Your task to perform on an android device: turn on the 12-hour format for clock Image 0: 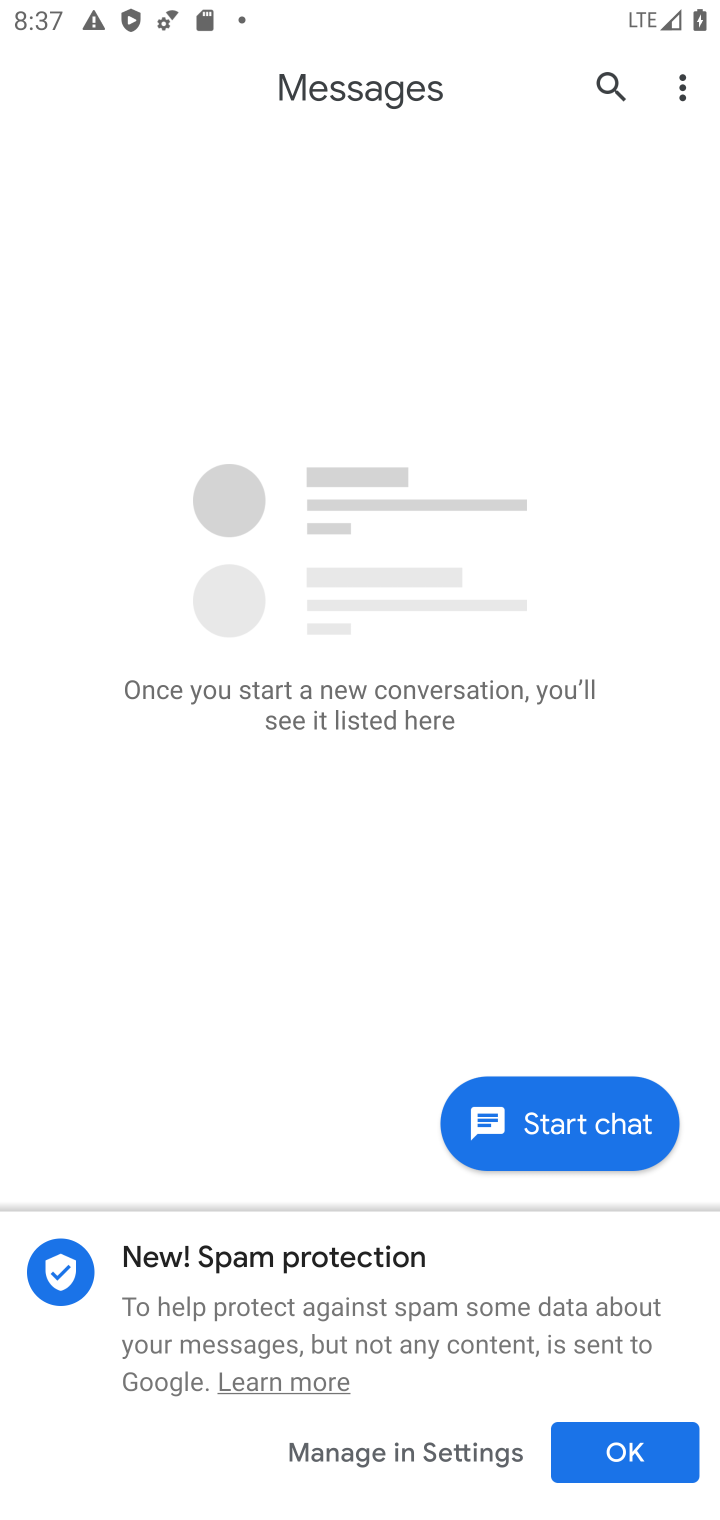
Step 0: press home button
Your task to perform on an android device: turn on the 12-hour format for clock Image 1: 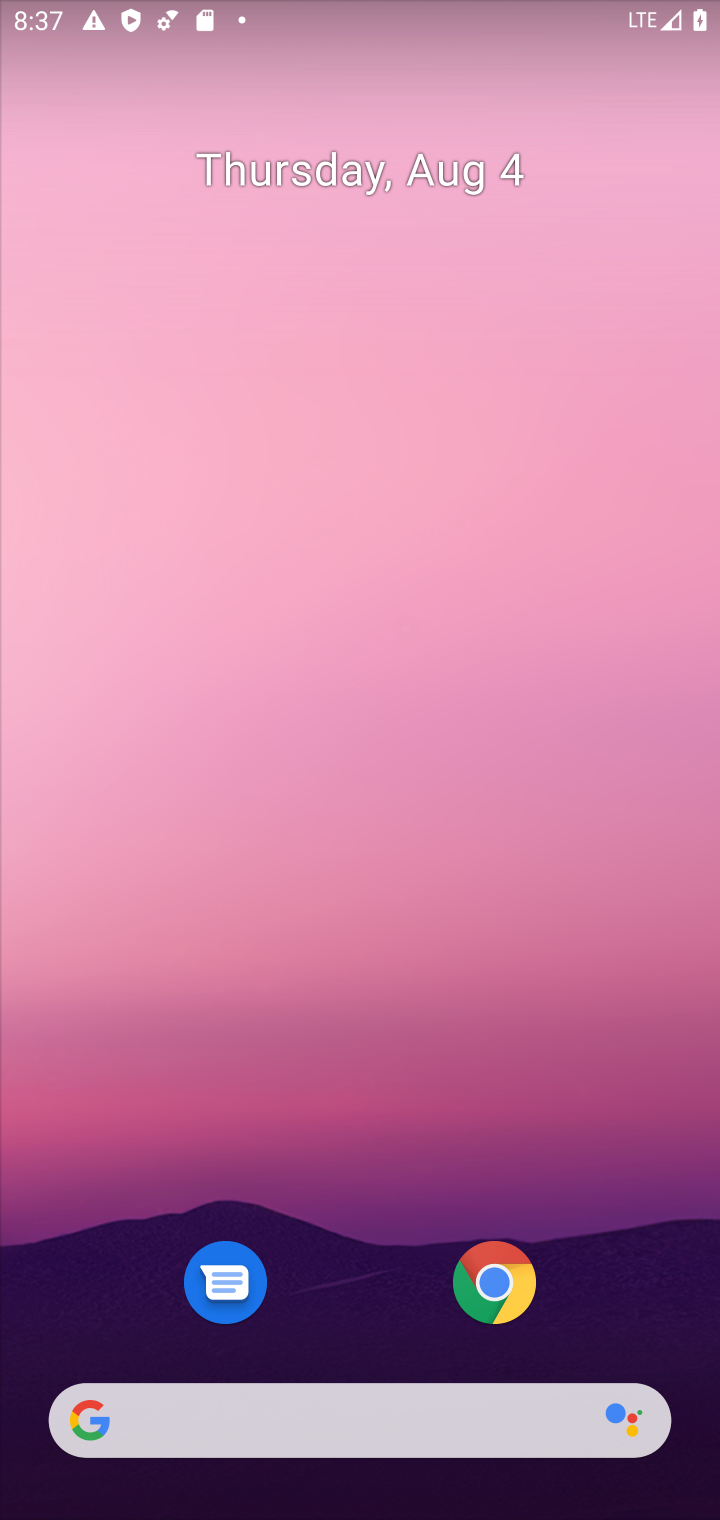
Step 1: drag from (379, 1216) to (463, 292)
Your task to perform on an android device: turn on the 12-hour format for clock Image 2: 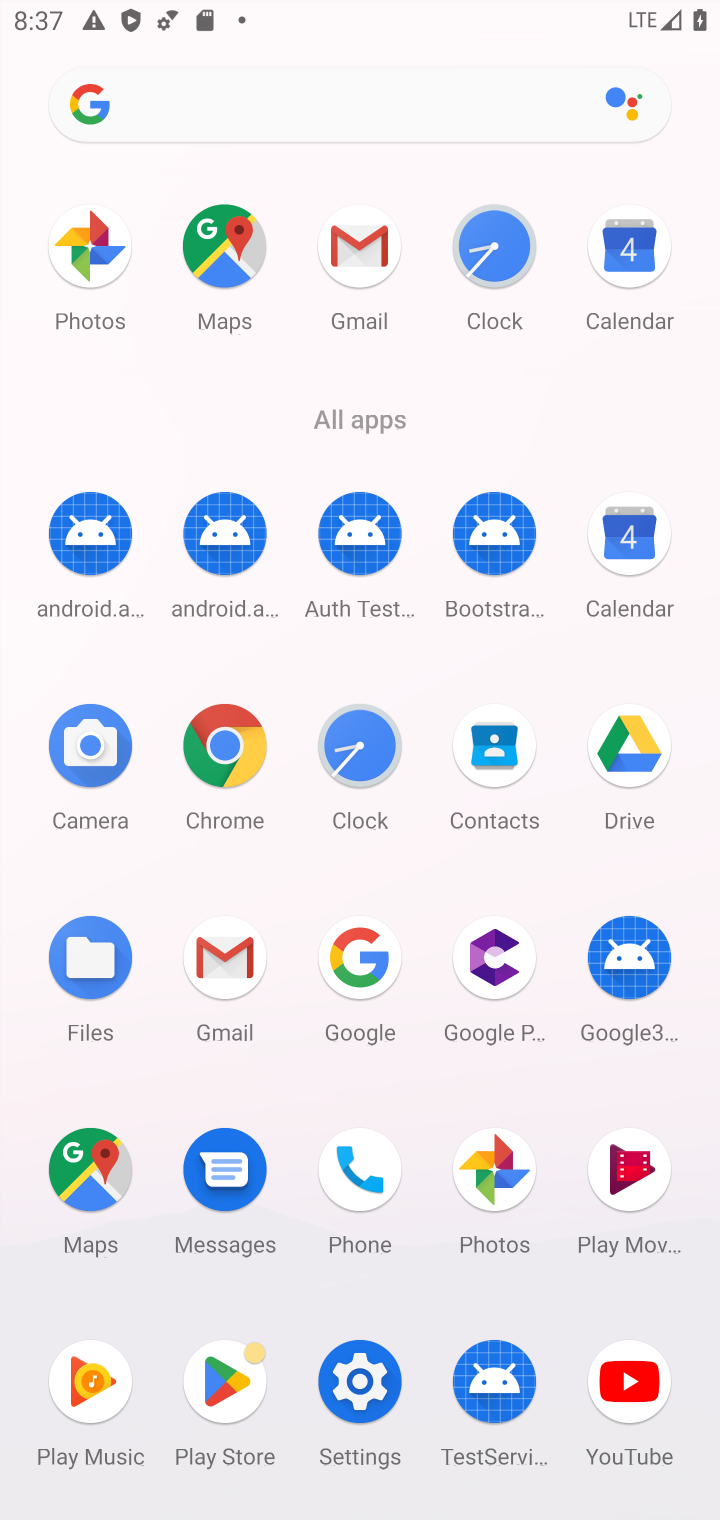
Step 2: click (483, 275)
Your task to perform on an android device: turn on the 12-hour format for clock Image 3: 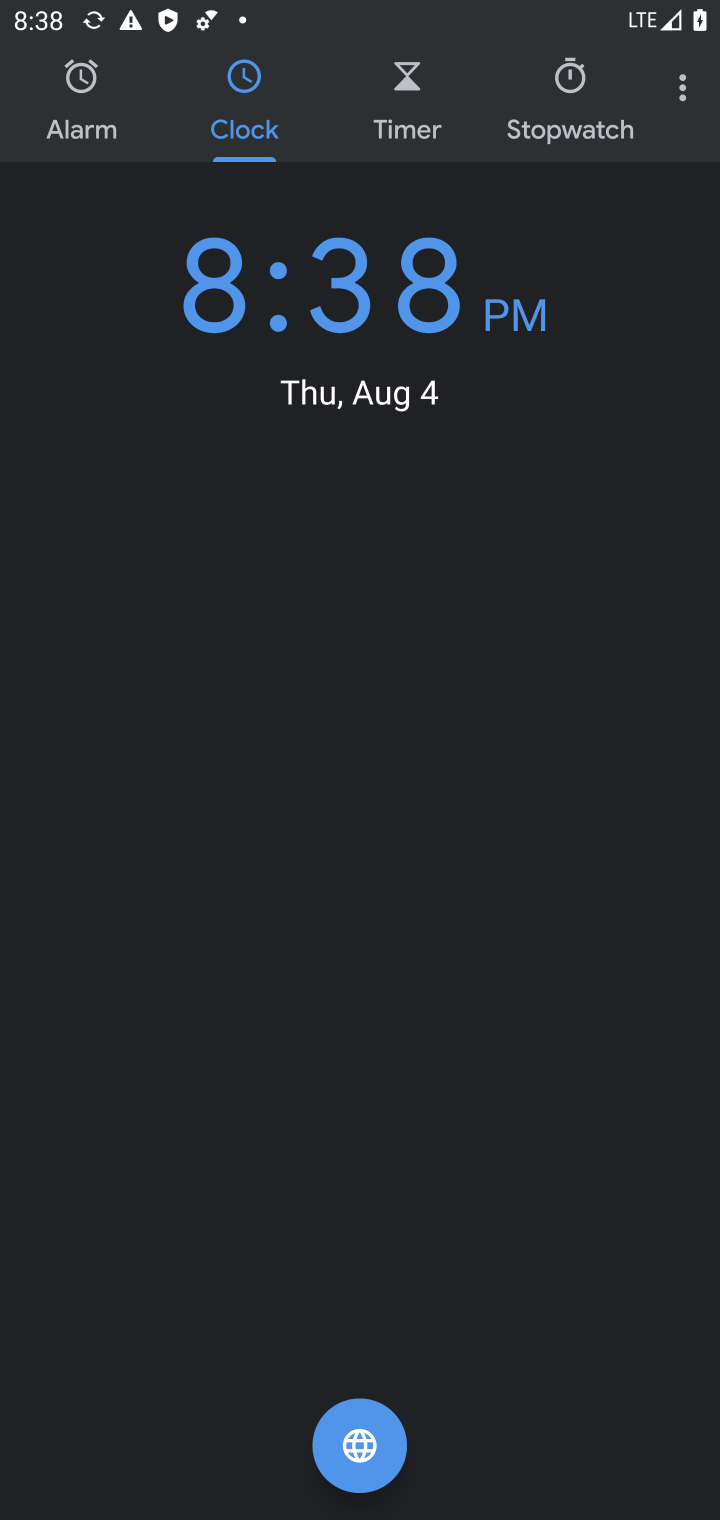
Step 3: click (683, 102)
Your task to perform on an android device: turn on the 12-hour format for clock Image 4: 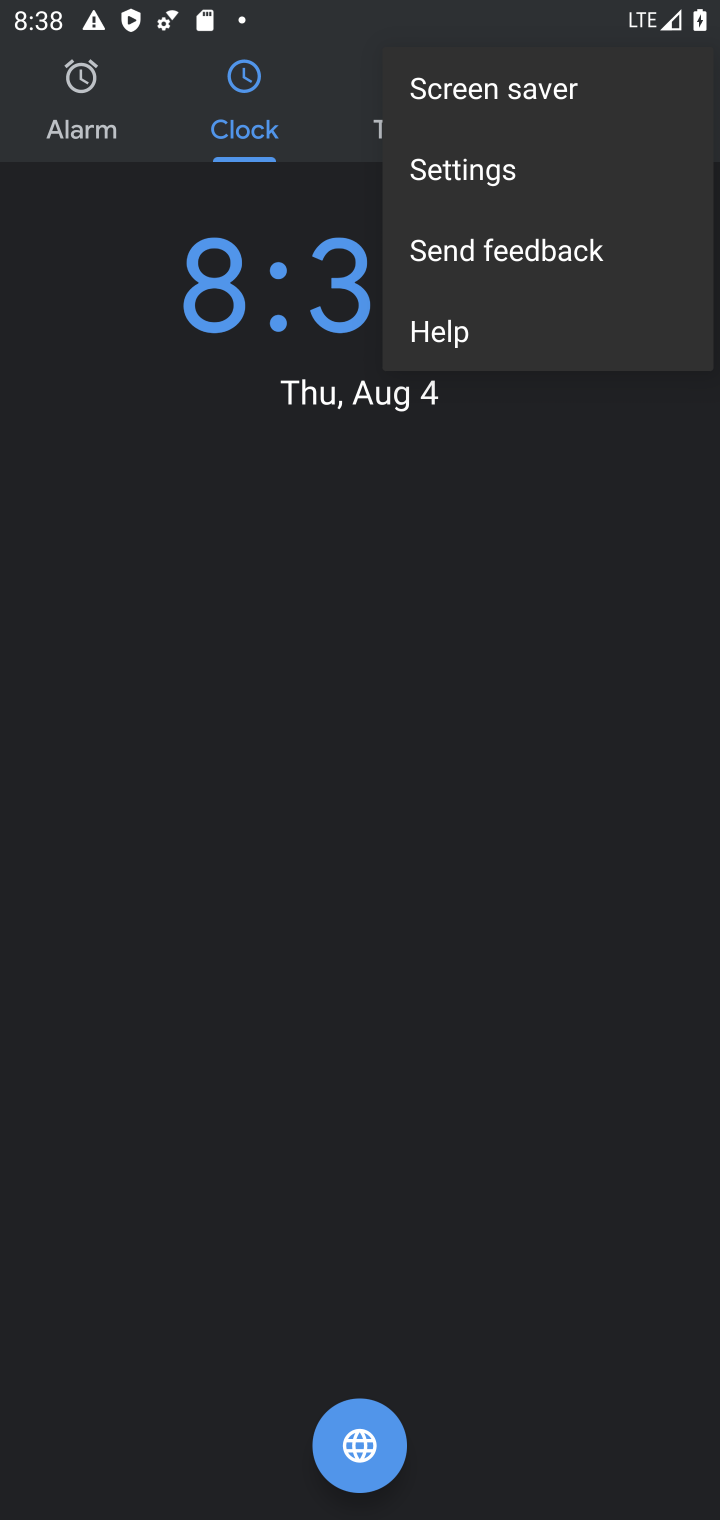
Step 4: click (488, 188)
Your task to perform on an android device: turn on the 12-hour format for clock Image 5: 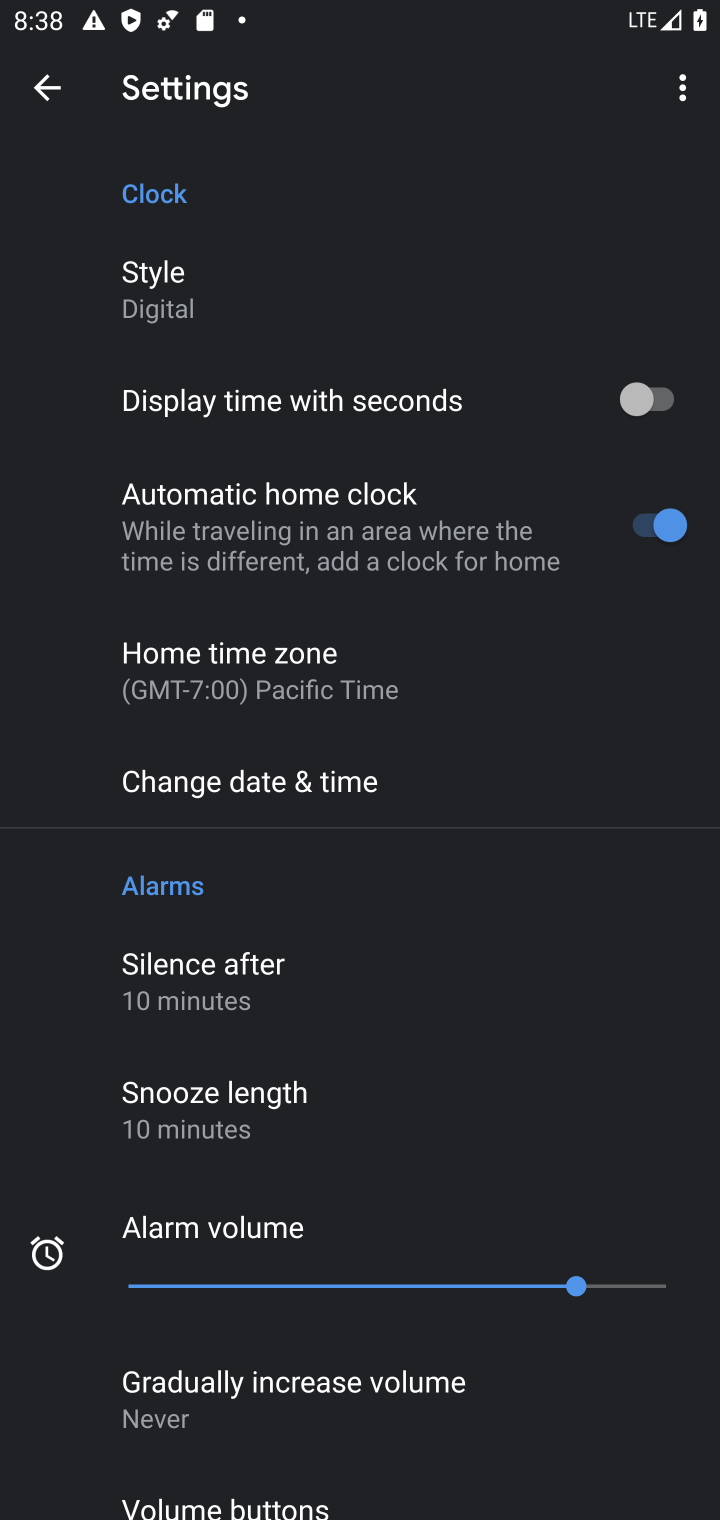
Step 5: drag from (444, 1114) to (338, 271)
Your task to perform on an android device: turn on the 12-hour format for clock Image 6: 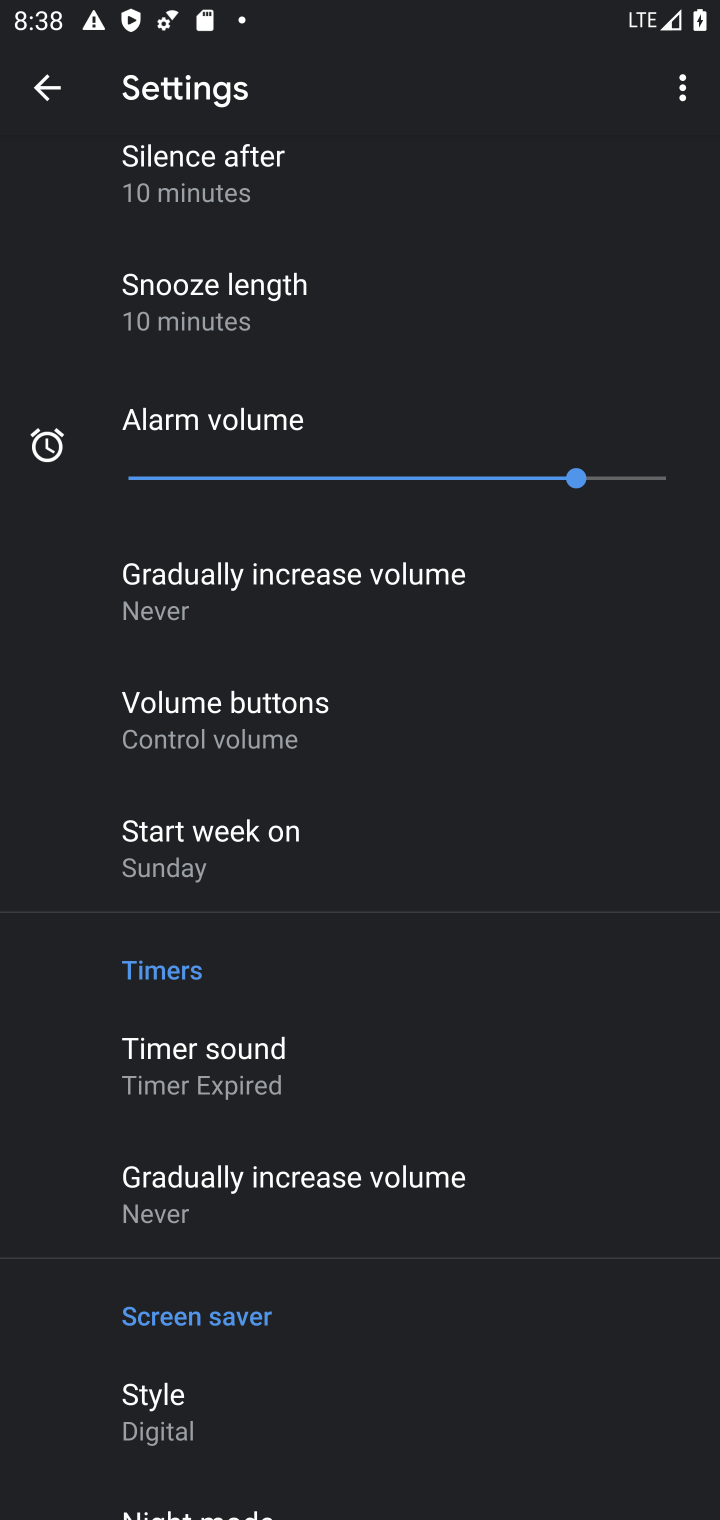
Step 6: drag from (375, 924) to (371, 1305)
Your task to perform on an android device: turn on the 12-hour format for clock Image 7: 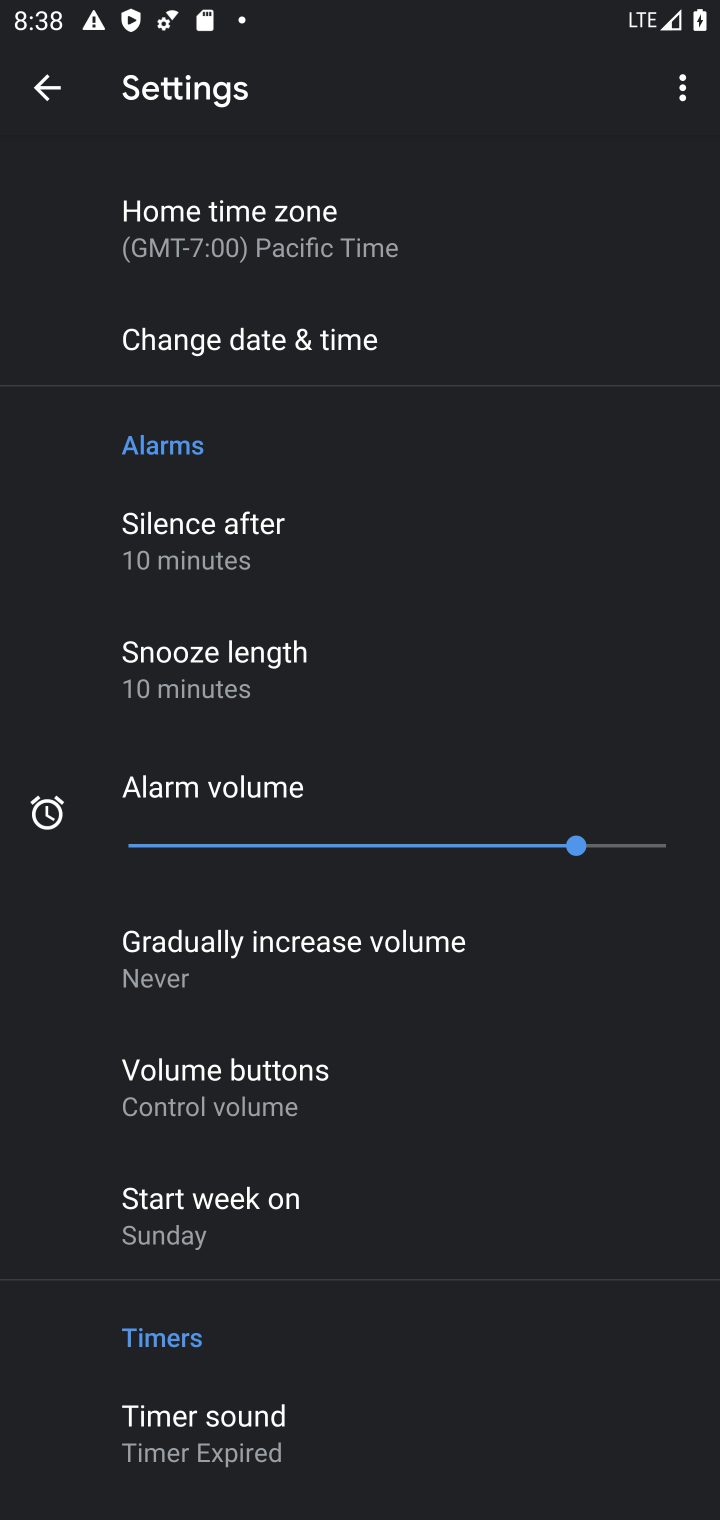
Step 7: click (272, 318)
Your task to perform on an android device: turn on the 12-hour format for clock Image 8: 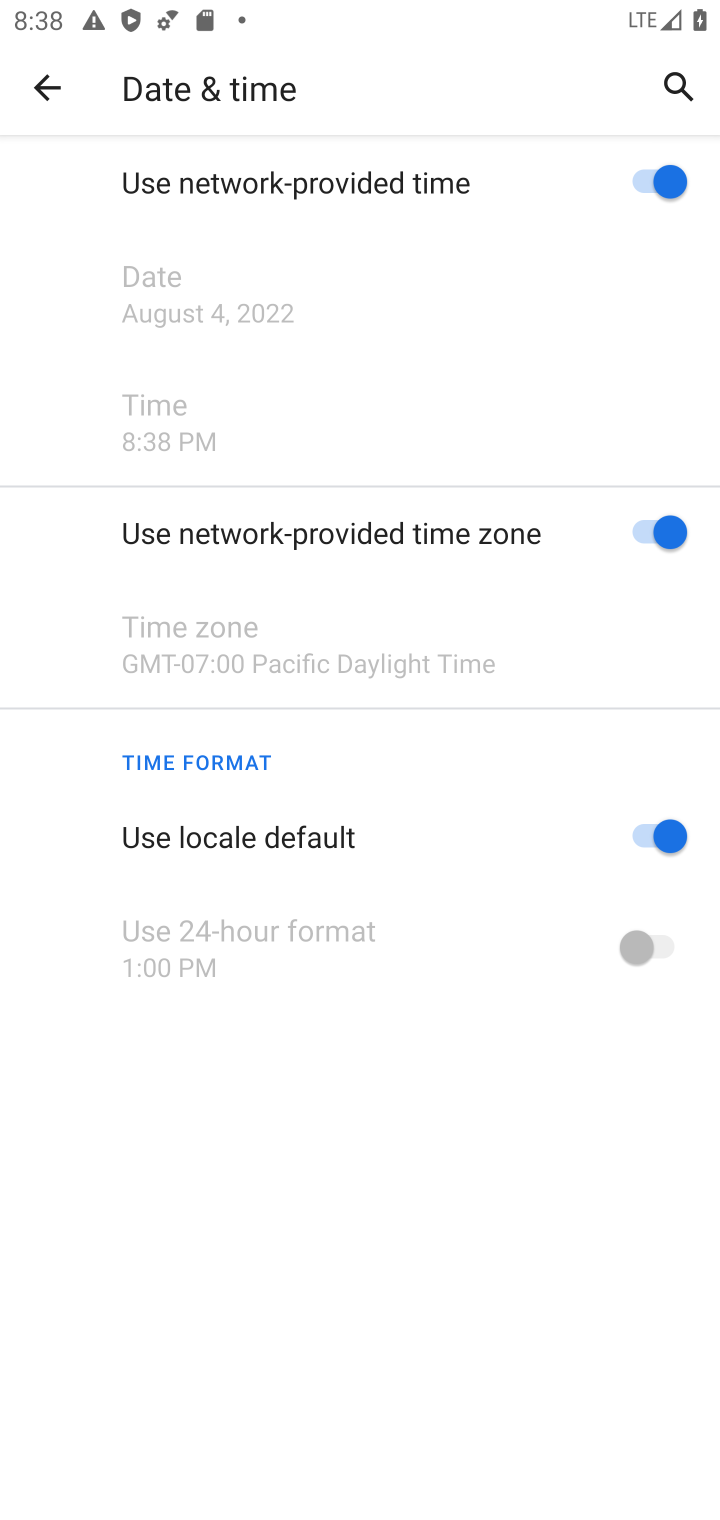
Step 8: task complete